Your task to perform on an android device: Search for a runner rug on Crate & Barrel Image 0: 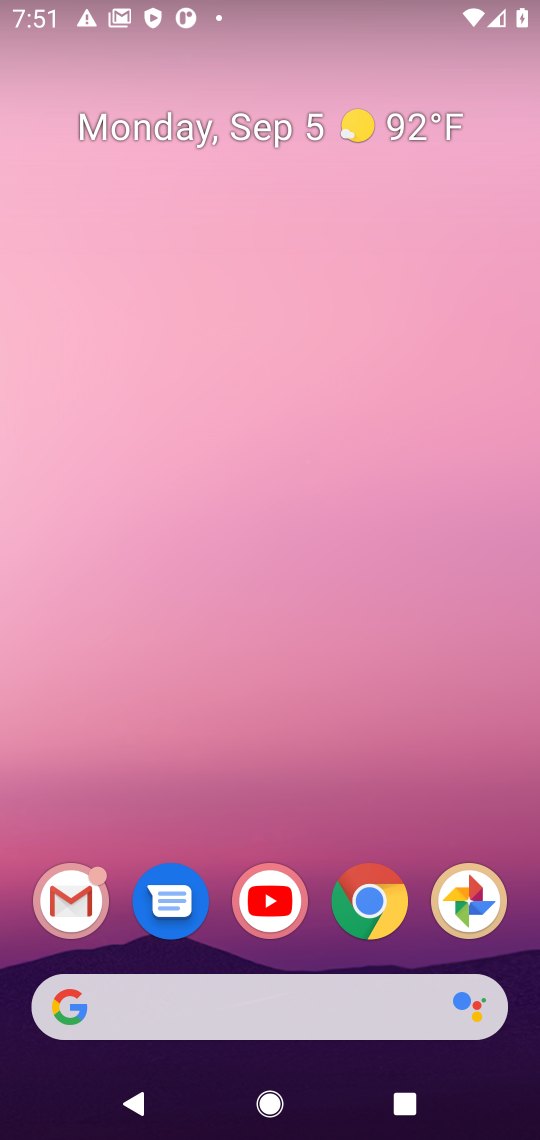
Step 0: click (355, 908)
Your task to perform on an android device: Search for a runner rug on Crate & Barrel Image 1: 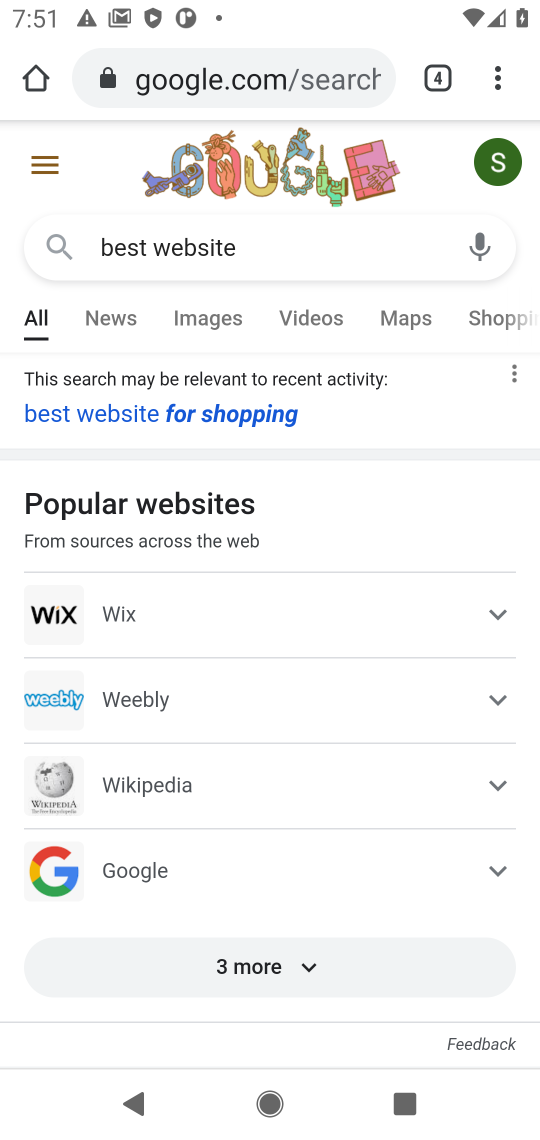
Step 1: click (236, 100)
Your task to perform on an android device: Search for a runner rug on Crate & Barrel Image 2: 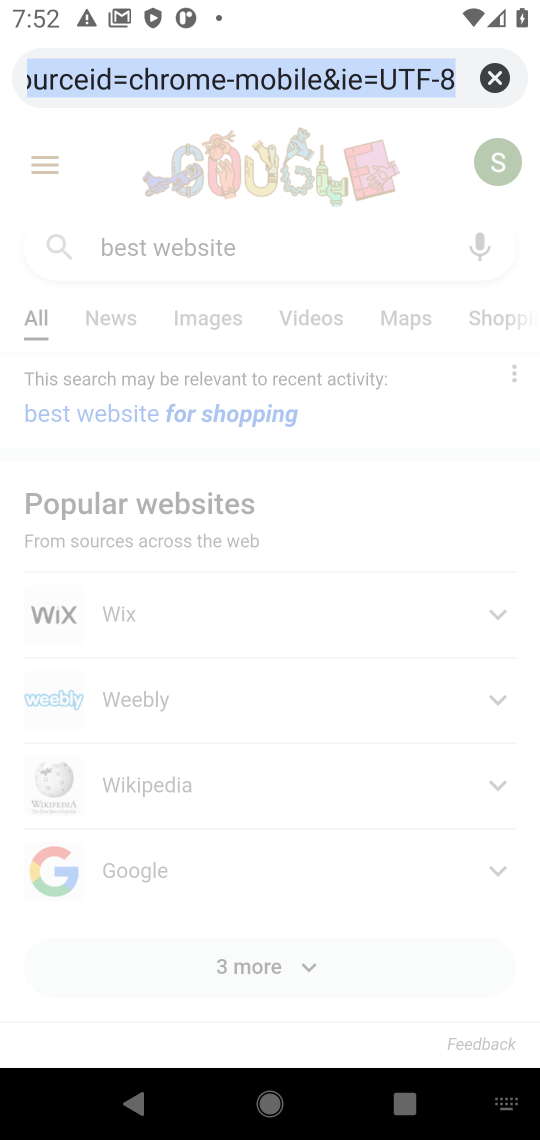
Step 2: type "crate&barrel"
Your task to perform on an android device: Search for a runner rug on Crate & Barrel Image 3: 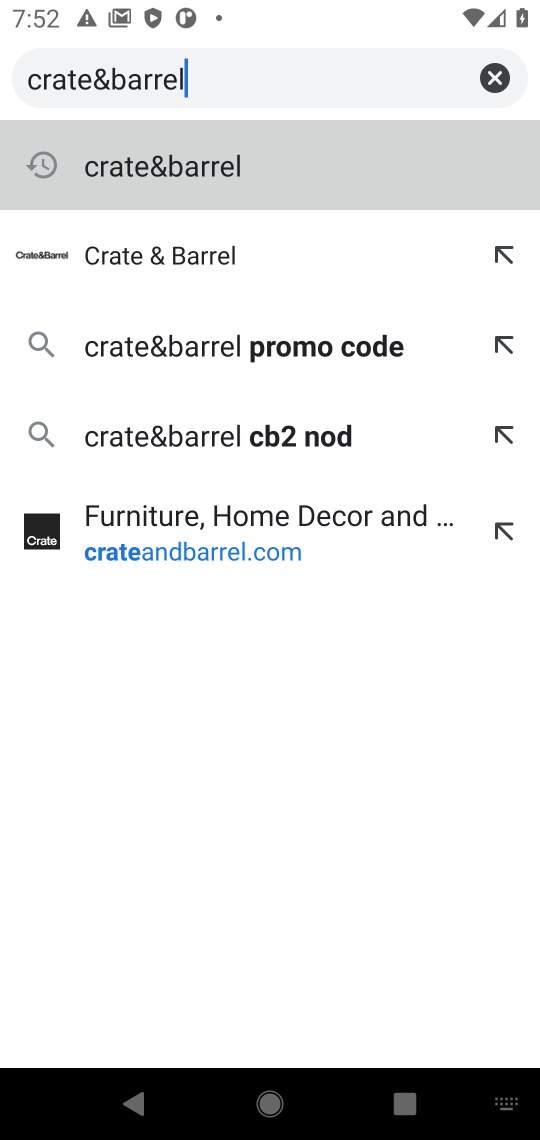
Step 3: click (371, 165)
Your task to perform on an android device: Search for a runner rug on Crate & Barrel Image 4: 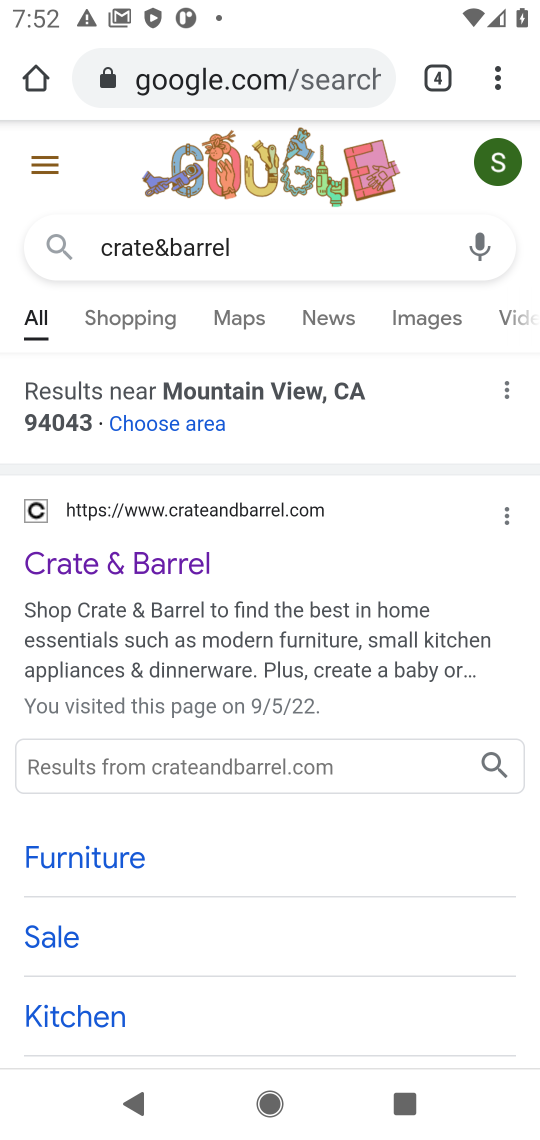
Step 4: click (103, 583)
Your task to perform on an android device: Search for a runner rug on Crate & Barrel Image 5: 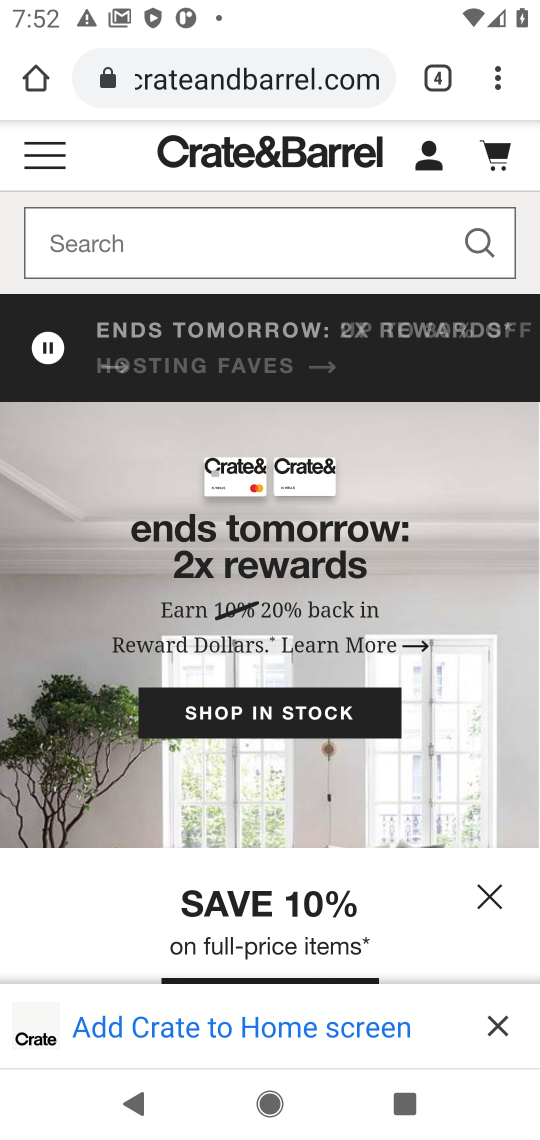
Step 5: click (271, 252)
Your task to perform on an android device: Search for a runner rug on Crate & Barrel Image 6: 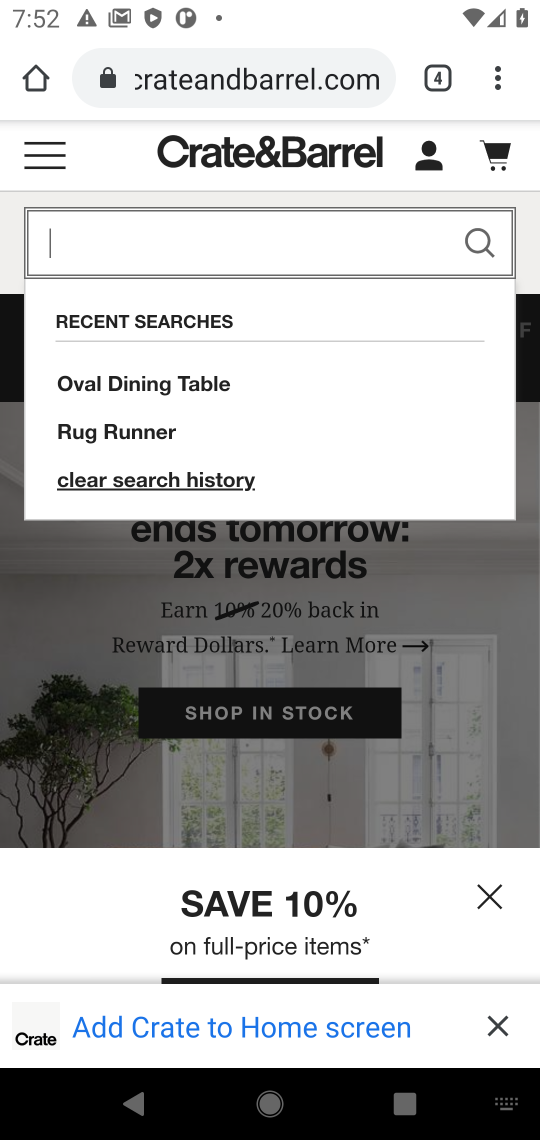
Step 6: click (168, 448)
Your task to perform on an android device: Search for a runner rug on Crate & Barrel Image 7: 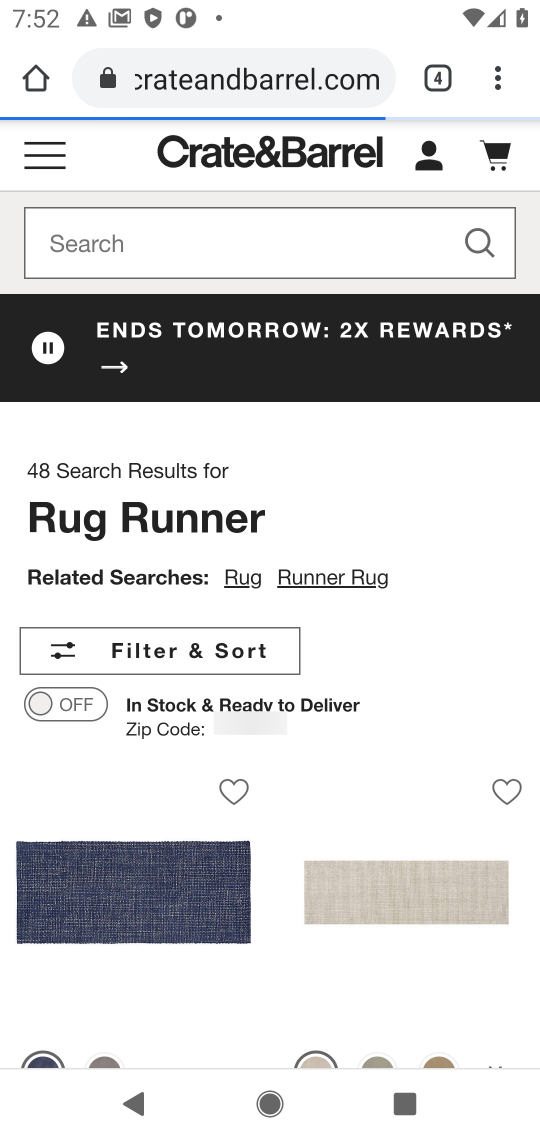
Step 7: task complete